Your task to perform on an android device: Go to Android settings Image 0: 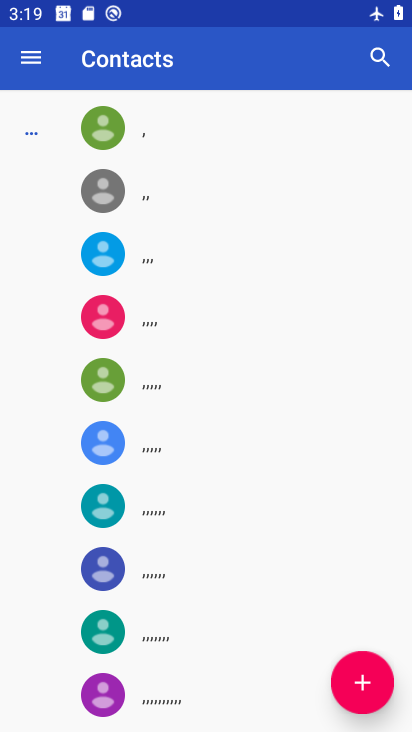
Step 0: press home button
Your task to perform on an android device: Go to Android settings Image 1: 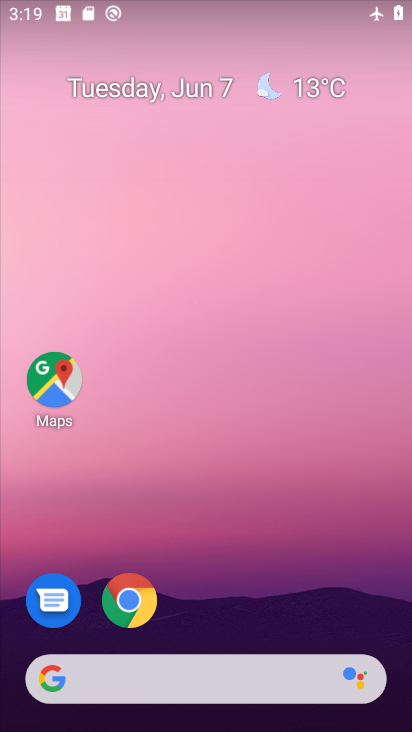
Step 1: drag from (258, 554) to (262, 101)
Your task to perform on an android device: Go to Android settings Image 2: 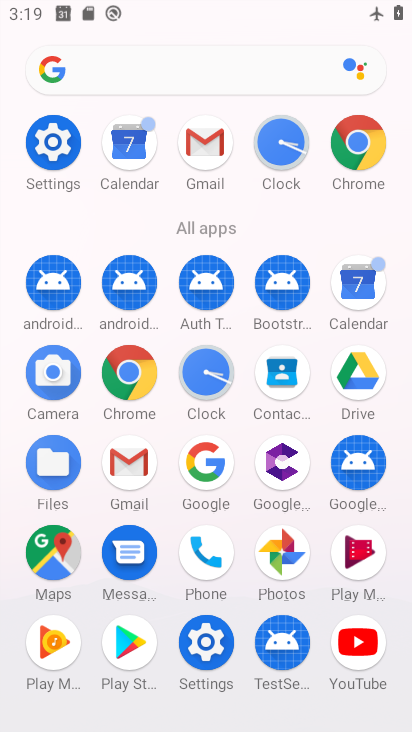
Step 2: click (67, 148)
Your task to perform on an android device: Go to Android settings Image 3: 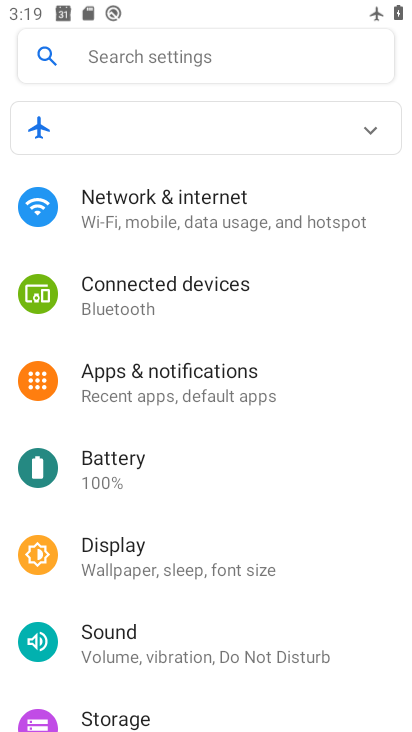
Step 3: task complete